Your task to perform on an android device: Go to Yahoo.com Image 0: 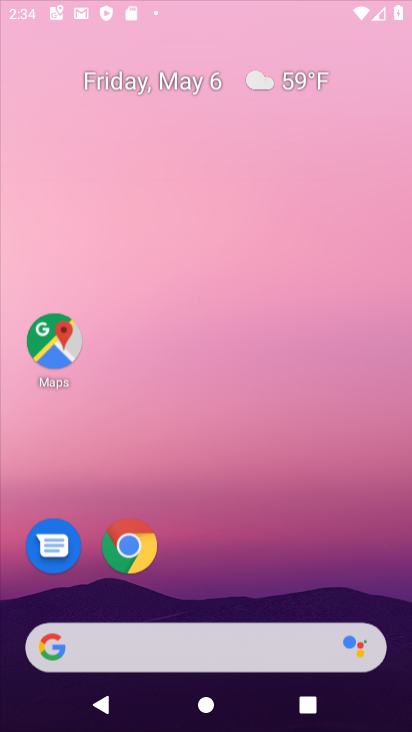
Step 0: click (295, 37)
Your task to perform on an android device: Go to Yahoo.com Image 1: 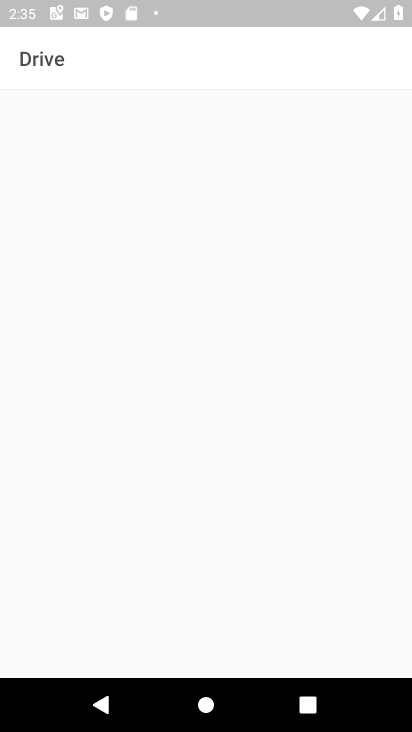
Step 1: drag from (233, 231) to (252, 495)
Your task to perform on an android device: Go to Yahoo.com Image 2: 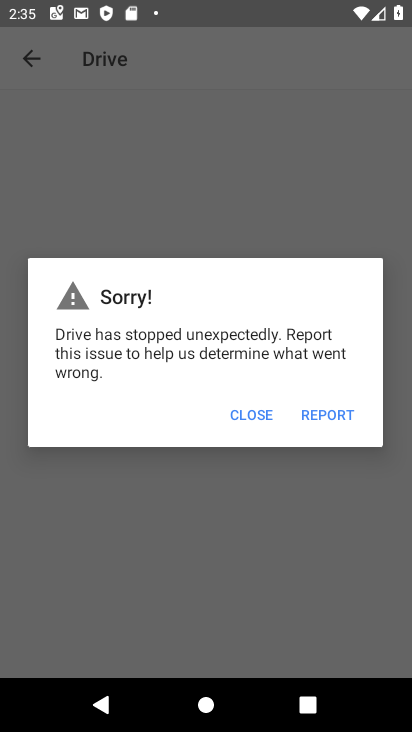
Step 2: press home button
Your task to perform on an android device: Go to Yahoo.com Image 3: 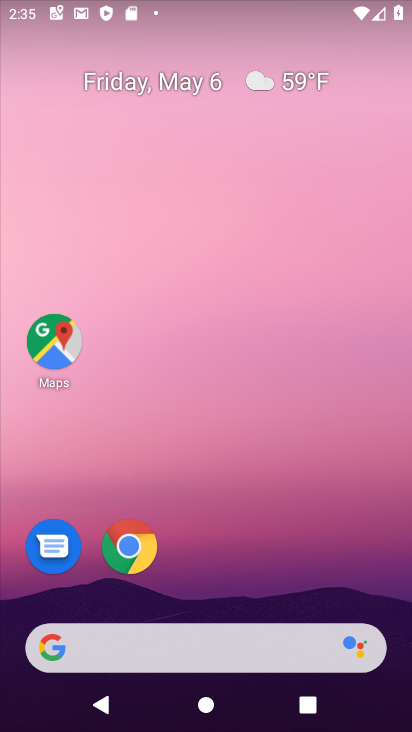
Step 3: click (123, 555)
Your task to perform on an android device: Go to Yahoo.com Image 4: 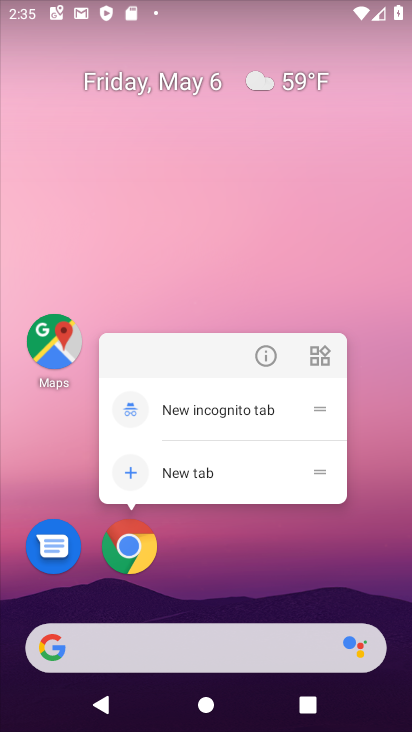
Step 4: click (135, 545)
Your task to perform on an android device: Go to Yahoo.com Image 5: 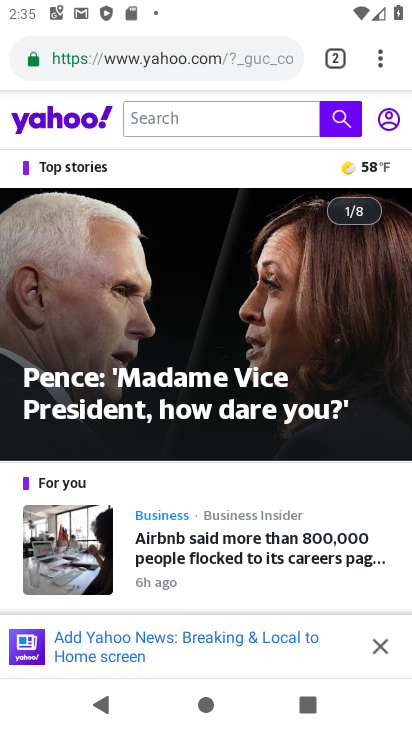
Step 5: task complete